Your task to perform on an android device: Go to CNN.com Image 0: 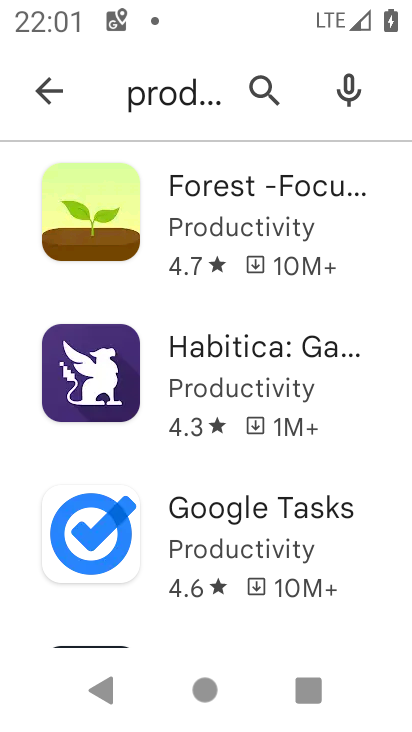
Step 0: press home button
Your task to perform on an android device: Go to CNN.com Image 1: 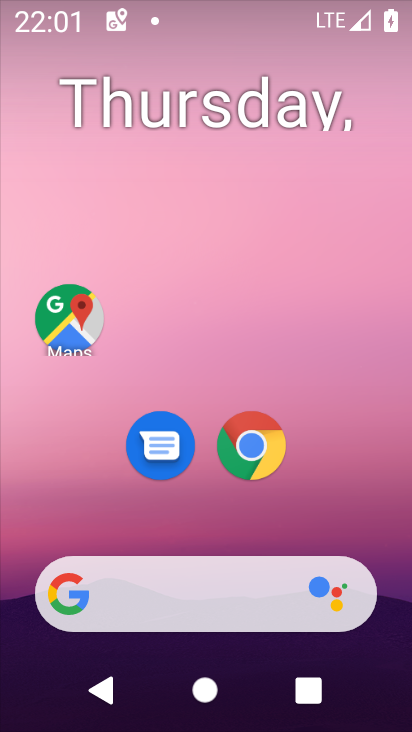
Step 1: drag from (252, 511) to (240, 167)
Your task to perform on an android device: Go to CNN.com Image 2: 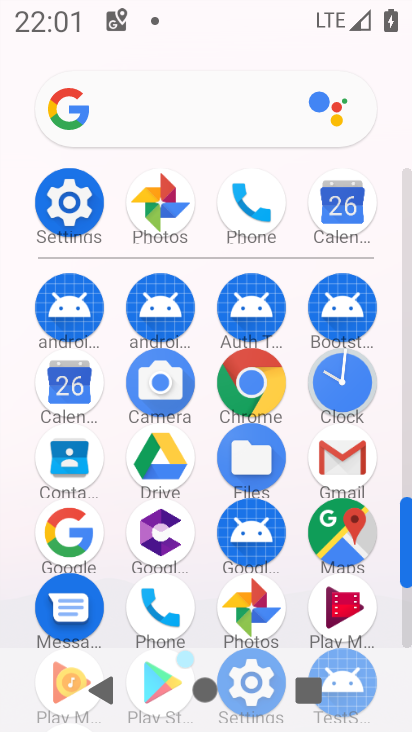
Step 2: click (234, 385)
Your task to perform on an android device: Go to CNN.com Image 3: 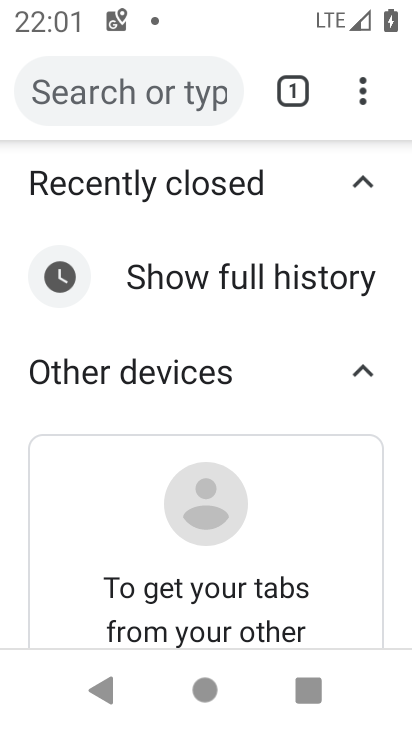
Step 3: click (169, 104)
Your task to perform on an android device: Go to CNN.com Image 4: 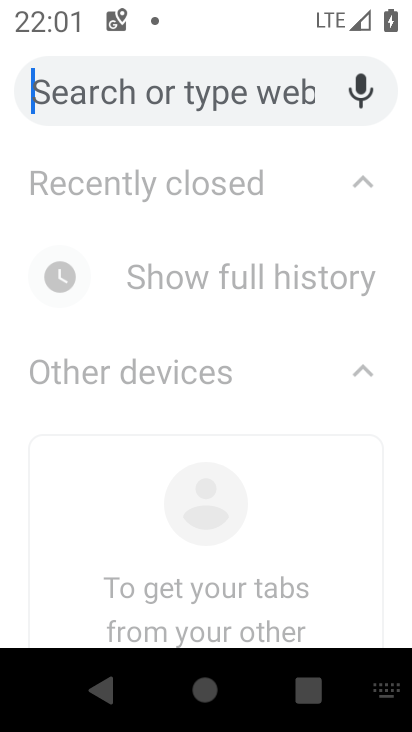
Step 4: type " CNN.com"
Your task to perform on an android device: Go to CNN.com Image 5: 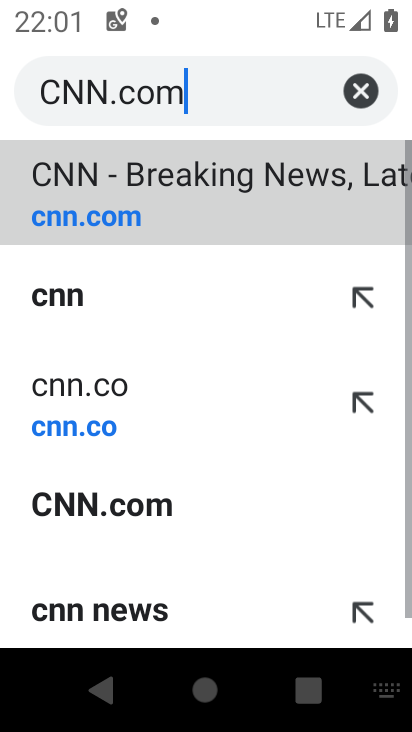
Step 5: type ""
Your task to perform on an android device: Go to CNN.com Image 6: 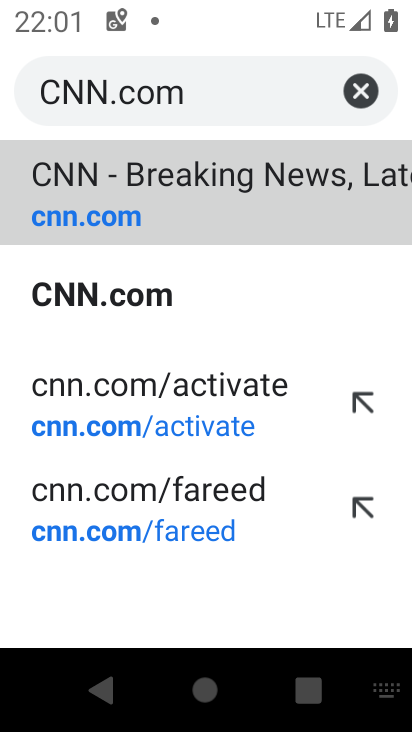
Step 6: click (214, 189)
Your task to perform on an android device: Go to CNN.com Image 7: 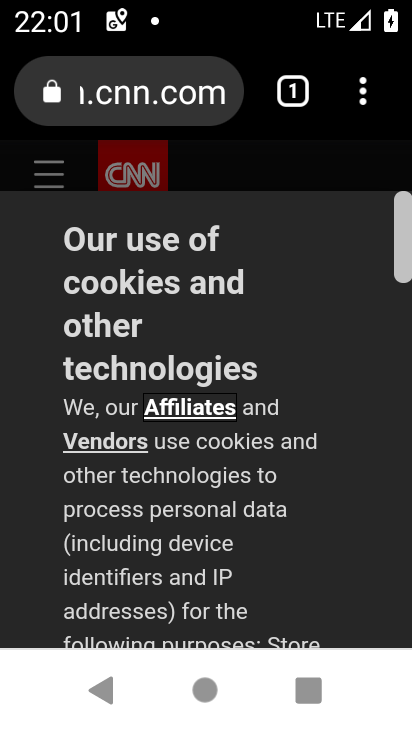
Step 7: drag from (245, 579) to (271, 134)
Your task to perform on an android device: Go to CNN.com Image 8: 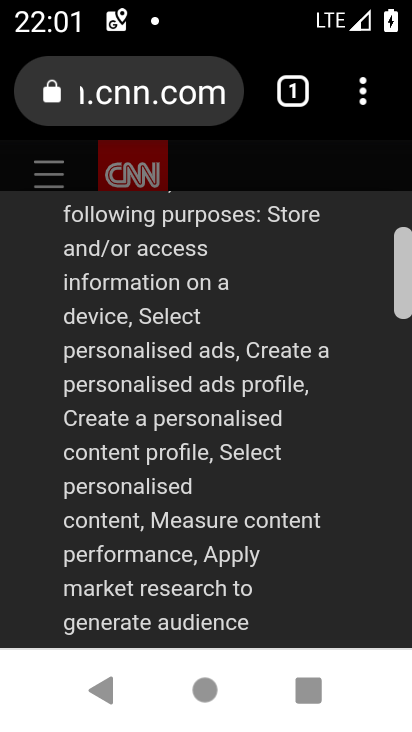
Step 8: drag from (242, 570) to (230, 165)
Your task to perform on an android device: Go to CNN.com Image 9: 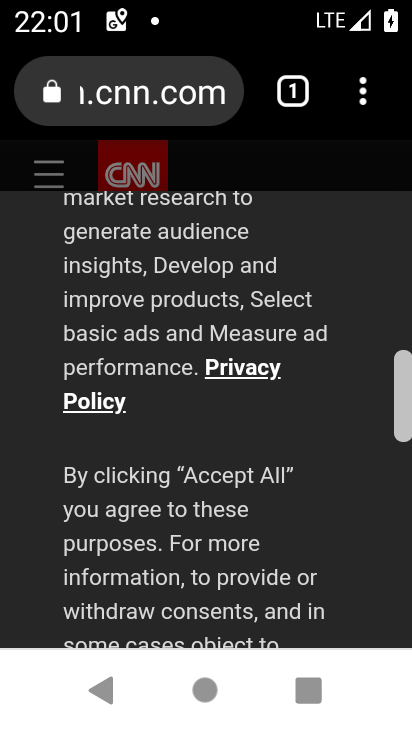
Step 9: drag from (255, 586) to (237, 185)
Your task to perform on an android device: Go to CNN.com Image 10: 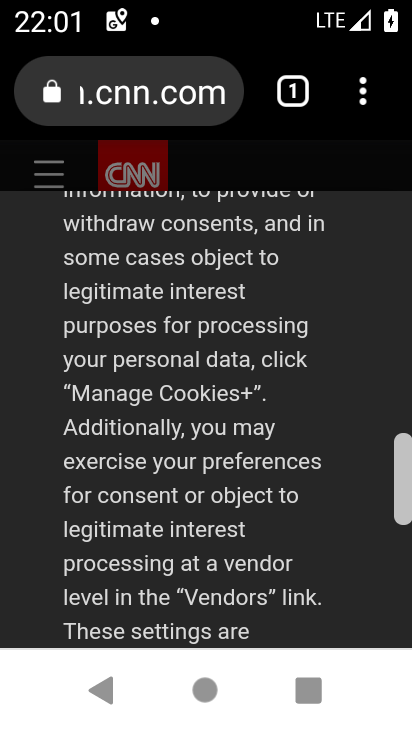
Step 10: drag from (259, 506) to (252, 152)
Your task to perform on an android device: Go to CNN.com Image 11: 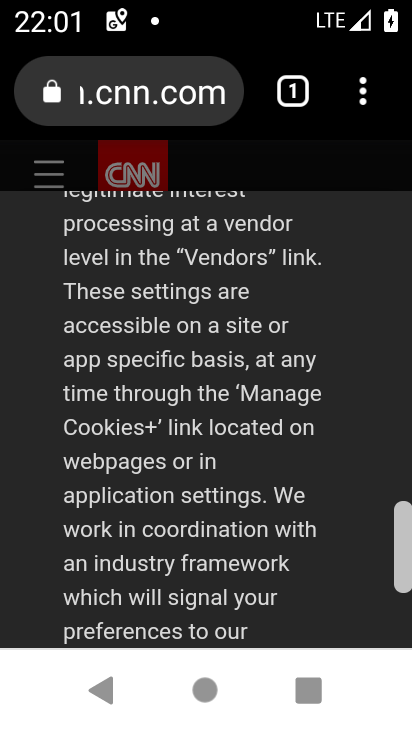
Step 11: drag from (249, 524) to (226, 179)
Your task to perform on an android device: Go to CNN.com Image 12: 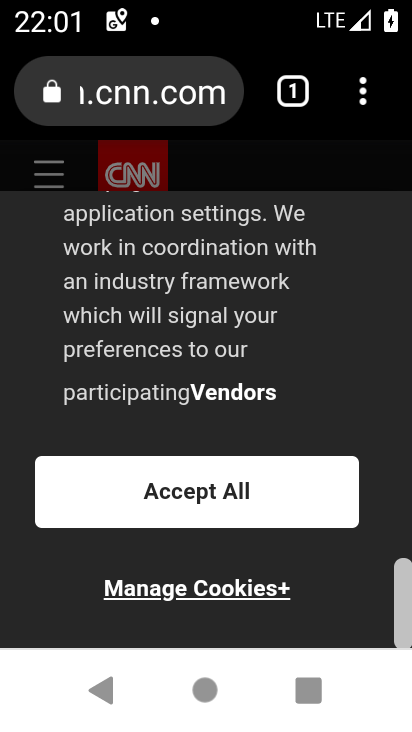
Step 12: click (237, 518)
Your task to perform on an android device: Go to CNN.com Image 13: 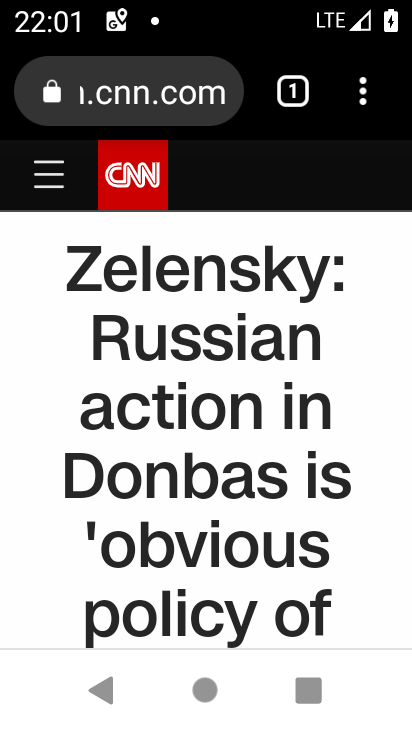
Step 13: task complete